Your task to perform on an android device: Open Android settings Image 0: 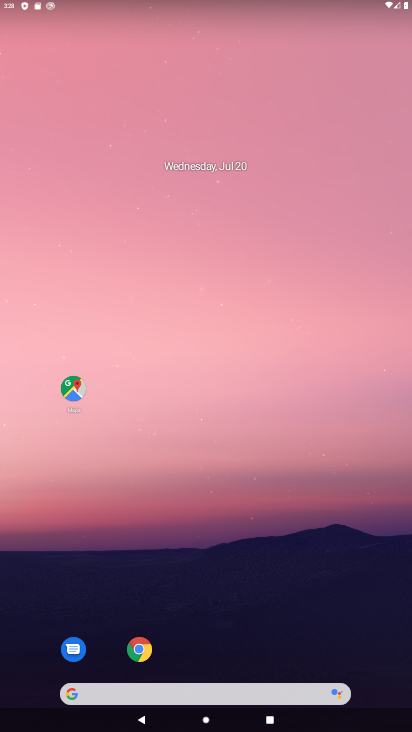
Step 0: drag from (228, 684) to (204, 303)
Your task to perform on an android device: Open Android settings Image 1: 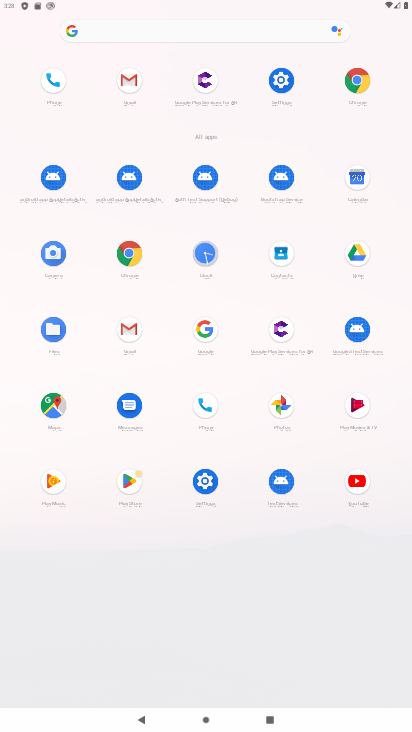
Step 1: click (282, 80)
Your task to perform on an android device: Open Android settings Image 2: 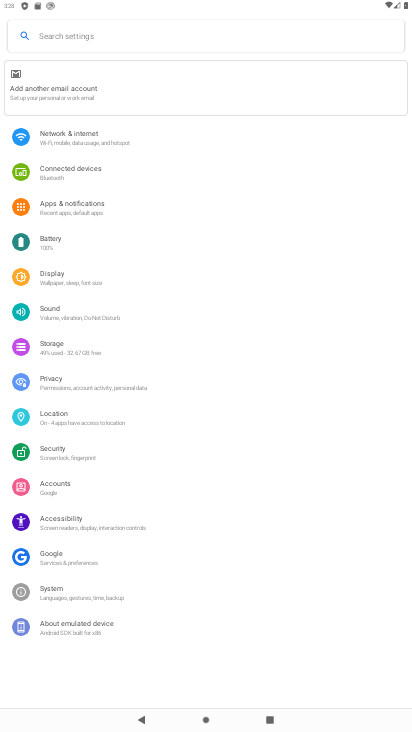
Step 2: task complete